Your task to perform on an android device: Open Youtube and go to "Your channel" Image 0: 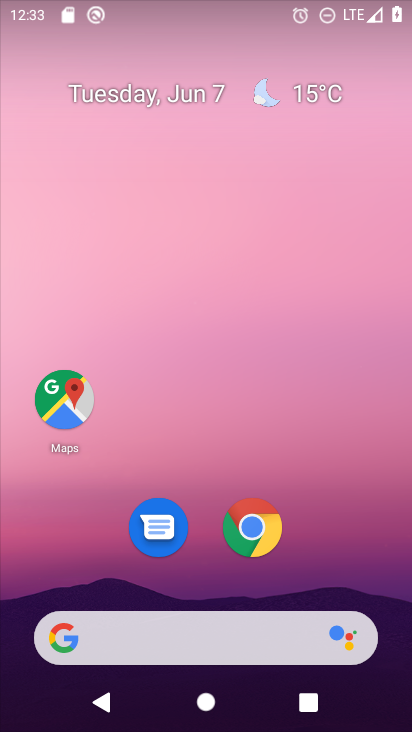
Step 0: drag from (369, 574) to (367, 80)
Your task to perform on an android device: Open Youtube and go to "Your channel" Image 1: 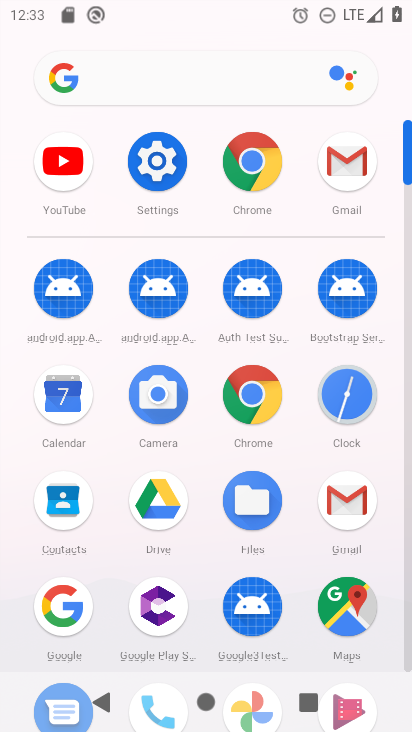
Step 1: click (68, 179)
Your task to perform on an android device: Open Youtube and go to "Your channel" Image 2: 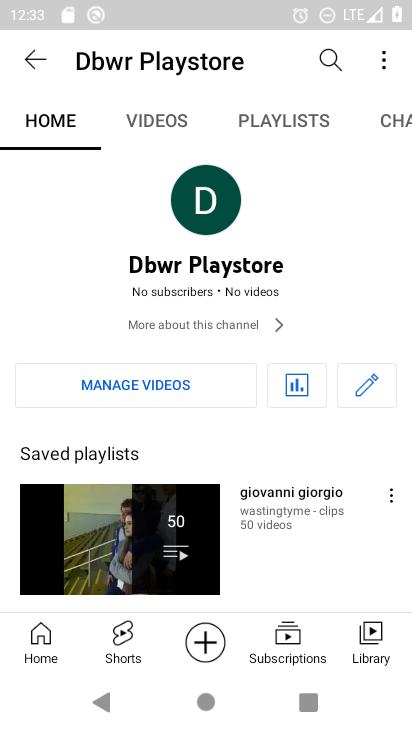
Step 2: task complete